Your task to perform on an android device: turn off airplane mode Image 0: 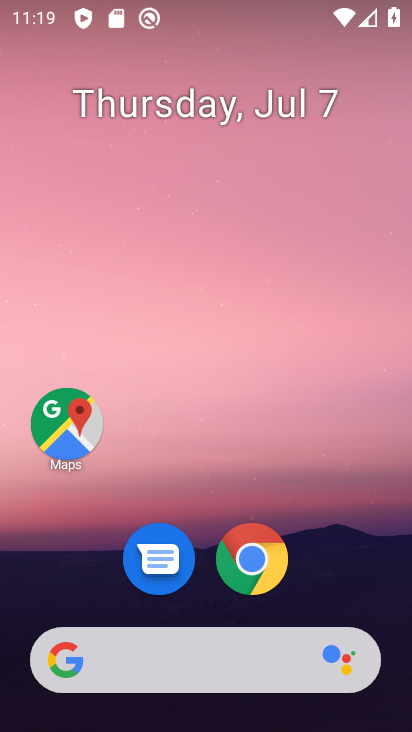
Step 0: drag from (381, 577) to (367, 135)
Your task to perform on an android device: turn off airplane mode Image 1: 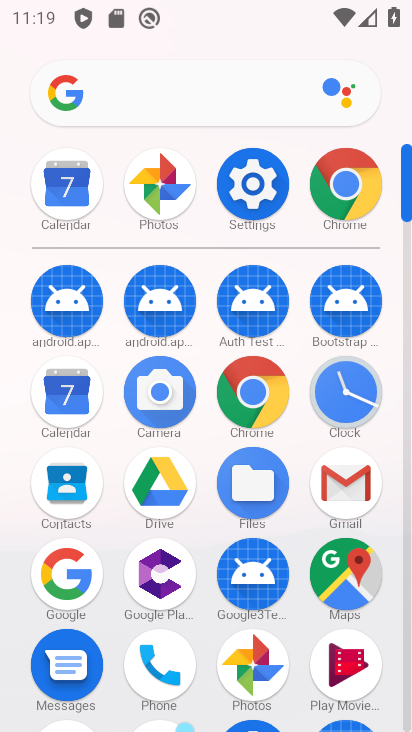
Step 1: click (253, 195)
Your task to perform on an android device: turn off airplane mode Image 2: 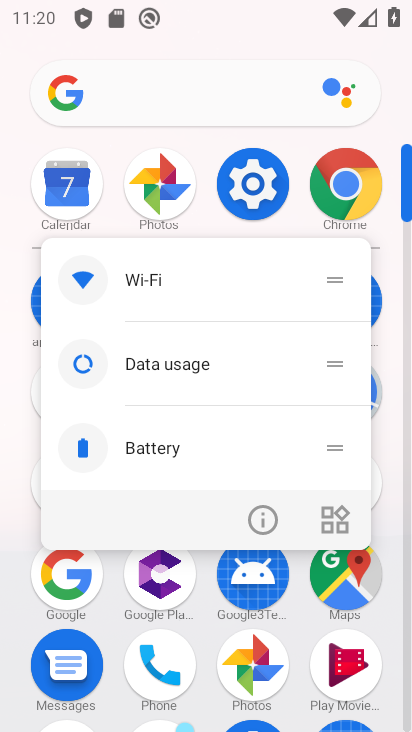
Step 2: click (253, 195)
Your task to perform on an android device: turn off airplane mode Image 3: 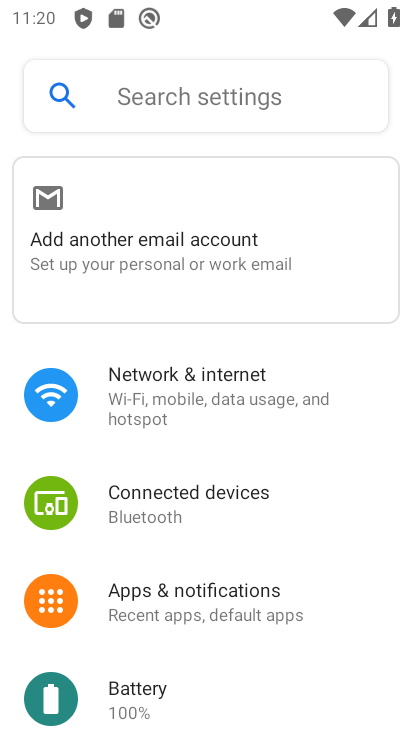
Step 3: drag from (360, 567) to (351, 340)
Your task to perform on an android device: turn off airplane mode Image 4: 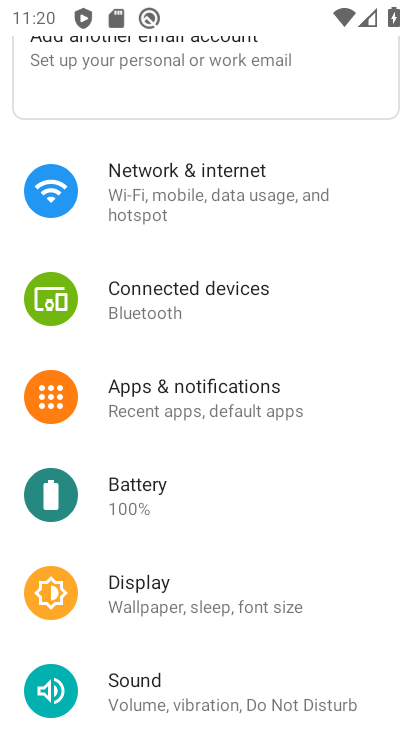
Step 4: drag from (361, 594) to (353, 320)
Your task to perform on an android device: turn off airplane mode Image 5: 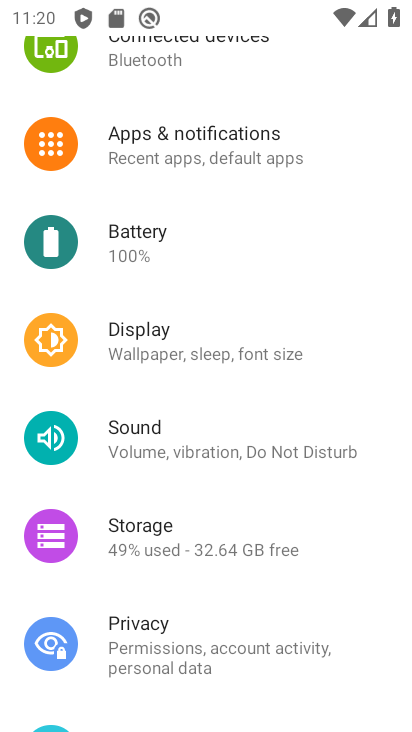
Step 5: drag from (363, 521) to (361, 315)
Your task to perform on an android device: turn off airplane mode Image 6: 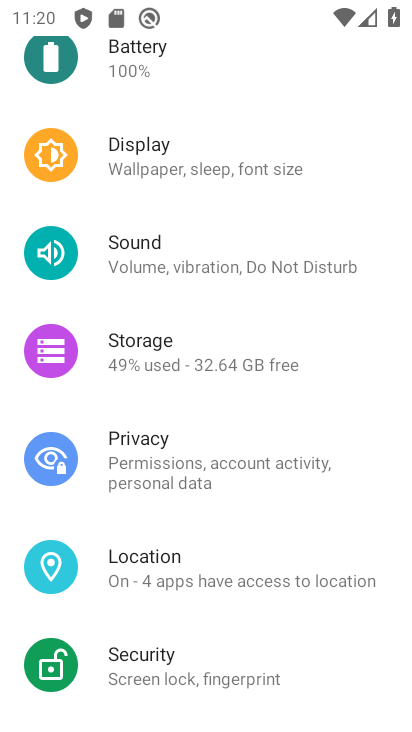
Step 6: drag from (361, 531) to (363, 359)
Your task to perform on an android device: turn off airplane mode Image 7: 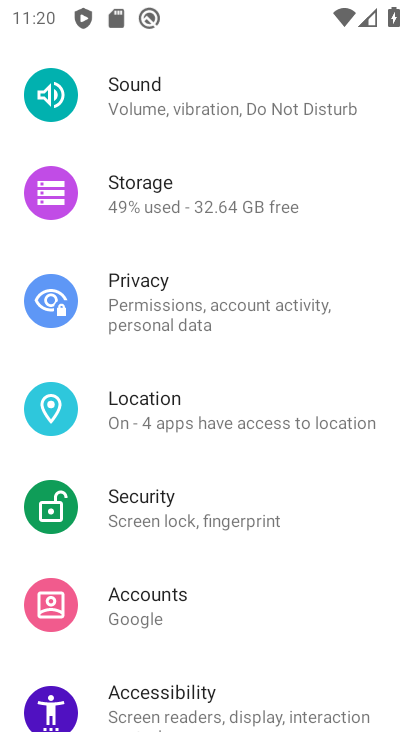
Step 7: drag from (362, 543) to (371, 351)
Your task to perform on an android device: turn off airplane mode Image 8: 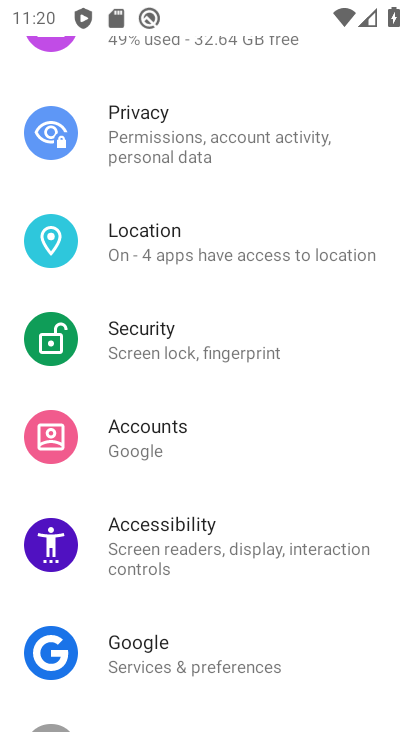
Step 8: drag from (360, 602) to (368, 392)
Your task to perform on an android device: turn off airplane mode Image 9: 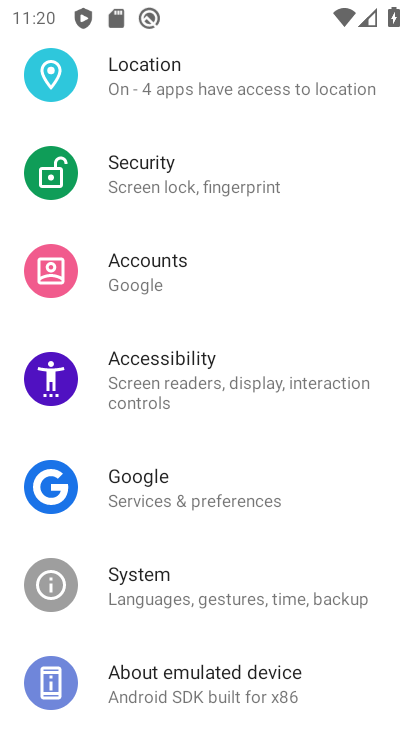
Step 9: drag from (378, 284) to (377, 402)
Your task to perform on an android device: turn off airplane mode Image 10: 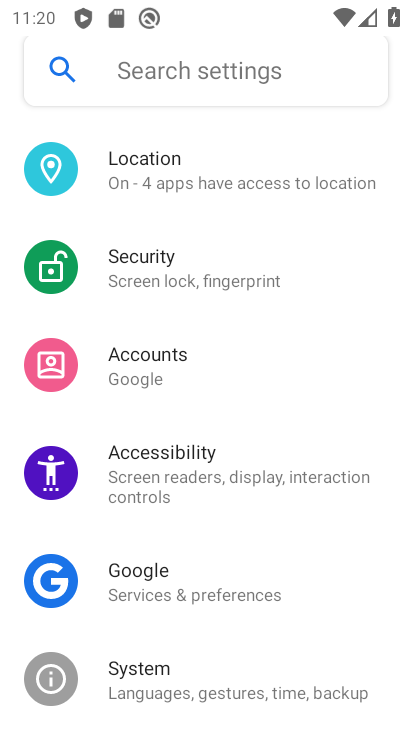
Step 10: drag from (365, 273) to (371, 434)
Your task to perform on an android device: turn off airplane mode Image 11: 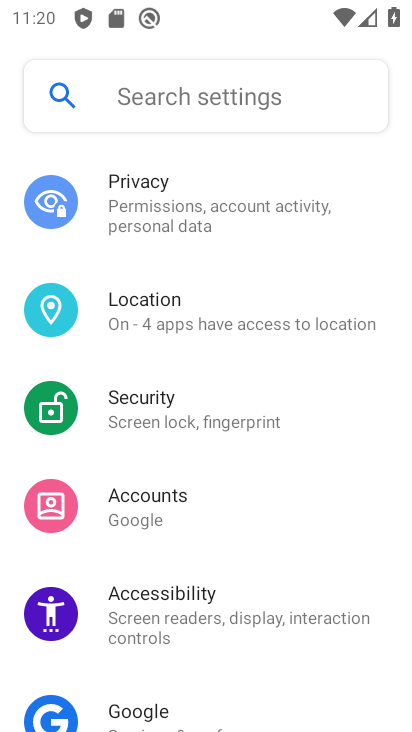
Step 11: drag from (369, 256) to (375, 403)
Your task to perform on an android device: turn off airplane mode Image 12: 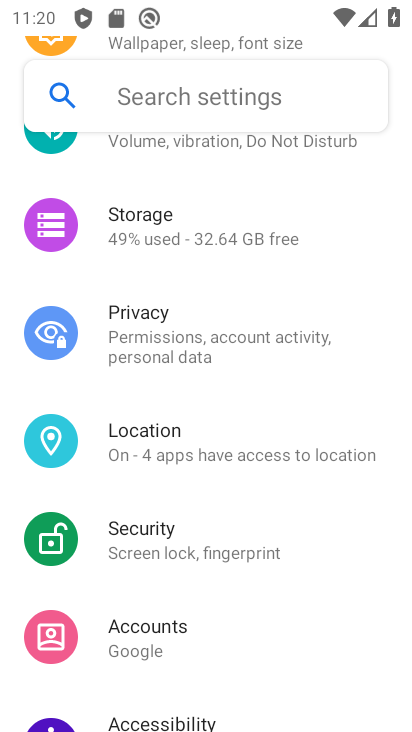
Step 12: drag from (363, 270) to (351, 410)
Your task to perform on an android device: turn off airplane mode Image 13: 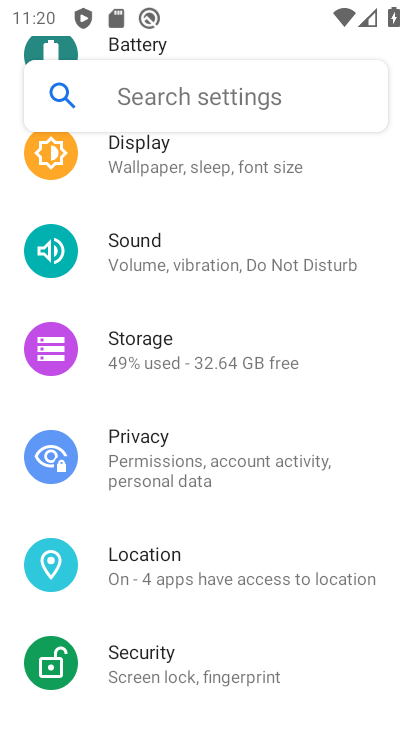
Step 13: drag from (362, 209) to (358, 393)
Your task to perform on an android device: turn off airplane mode Image 14: 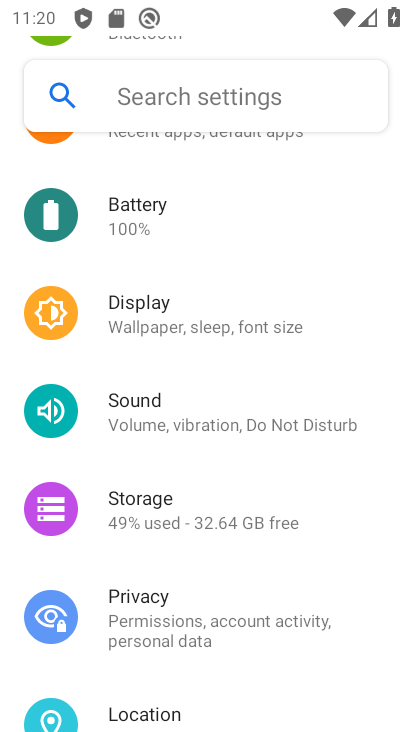
Step 14: drag from (353, 219) to (349, 402)
Your task to perform on an android device: turn off airplane mode Image 15: 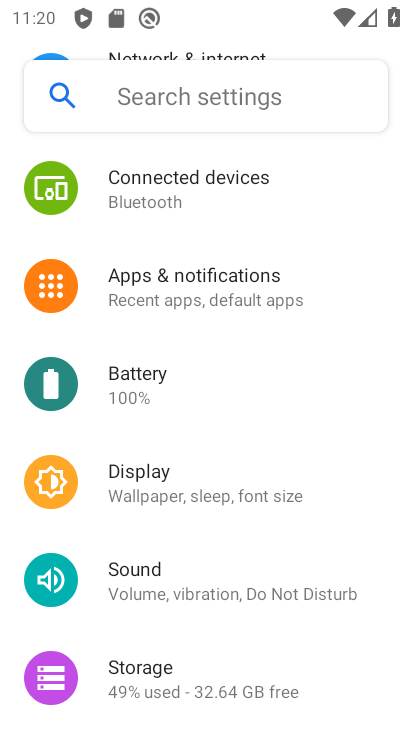
Step 15: drag from (340, 272) to (381, 505)
Your task to perform on an android device: turn off airplane mode Image 16: 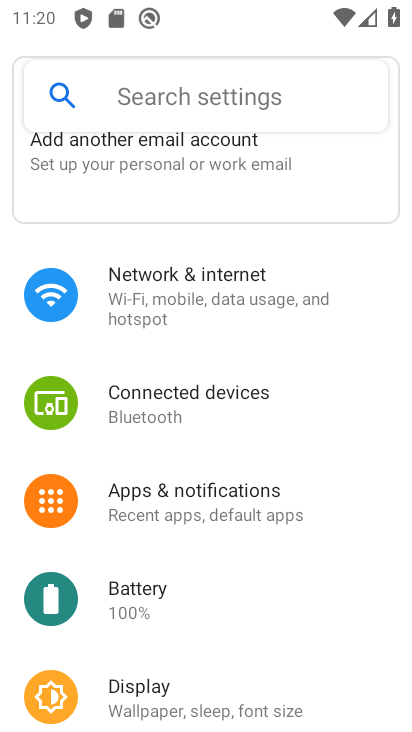
Step 16: click (223, 297)
Your task to perform on an android device: turn off airplane mode Image 17: 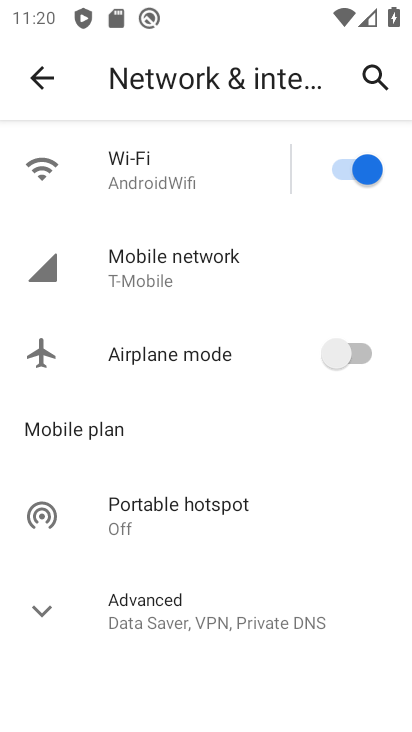
Step 17: task complete